Your task to perform on an android device: open app "Microsoft Authenticator" (install if not already installed) Image 0: 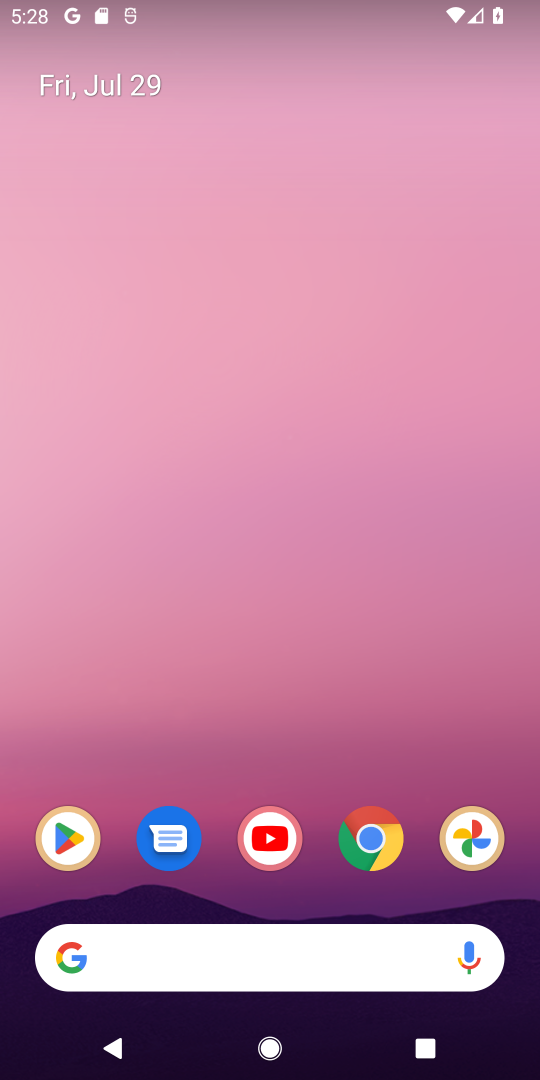
Step 0: click (77, 836)
Your task to perform on an android device: open app "Microsoft Authenticator" (install if not already installed) Image 1: 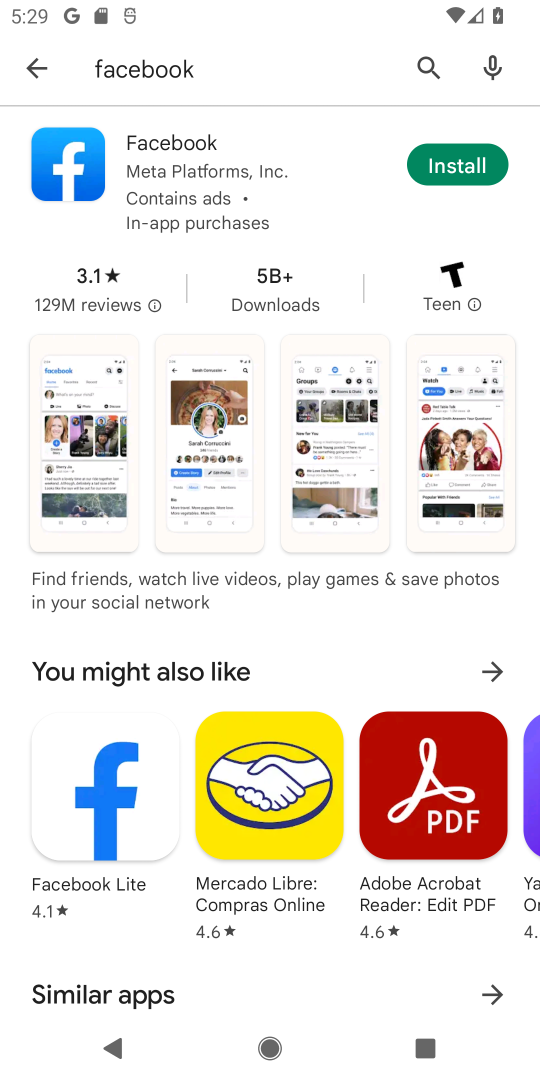
Step 1: click (419, 50)
Your task to perform on an android device: open app "Microsoft Authenticator" (install if not already installed) Image 2: 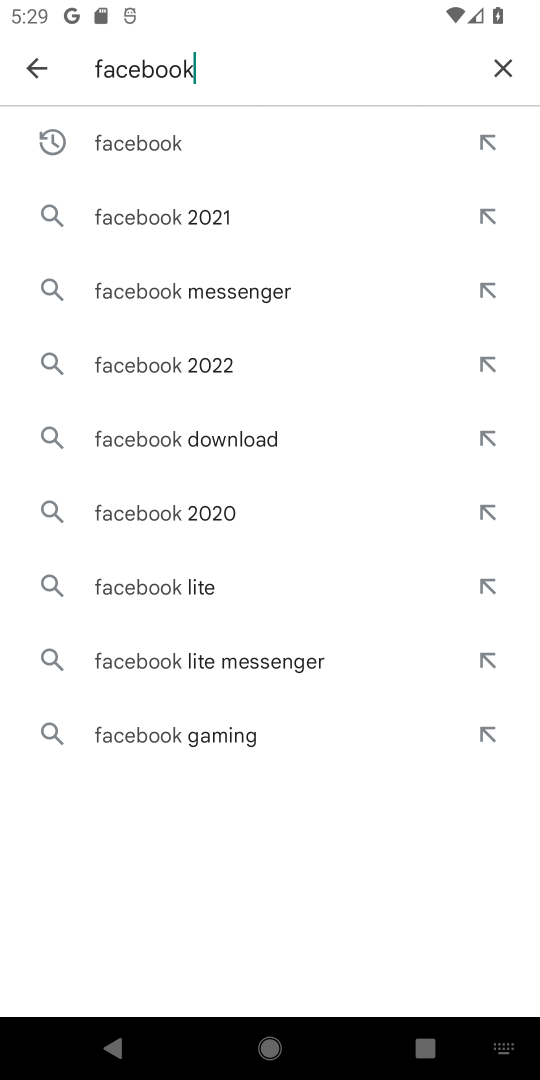
Step 2: click (500, 72)
Your task to perform on an android device: open app "Microsoft Authenticator" (install if not already installed) Image 3: 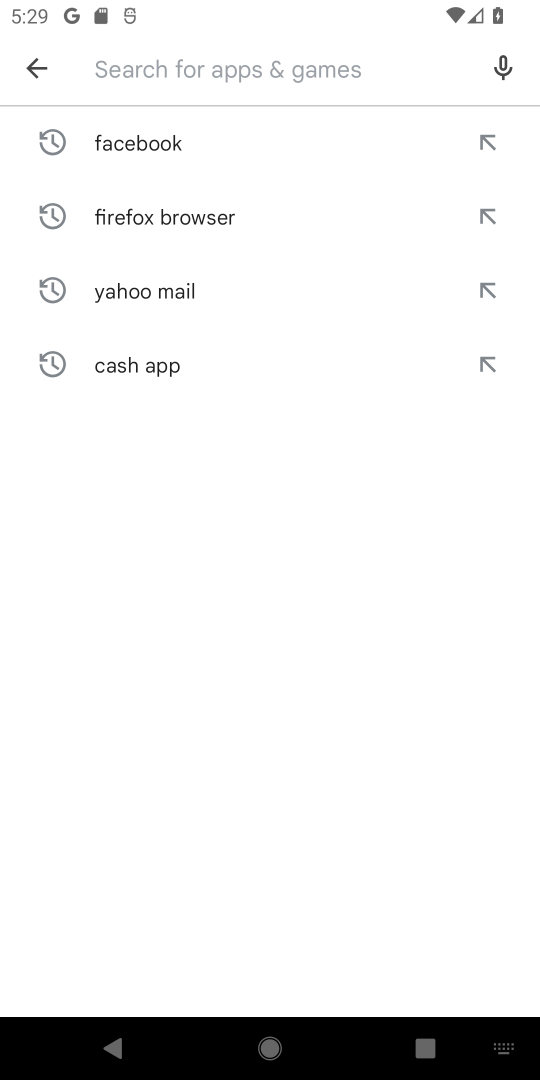
Step 3: click (256, 49)
Your task to perform on an android device: open app "Microsoft Authenticator" (install if not already installed) Image 4: 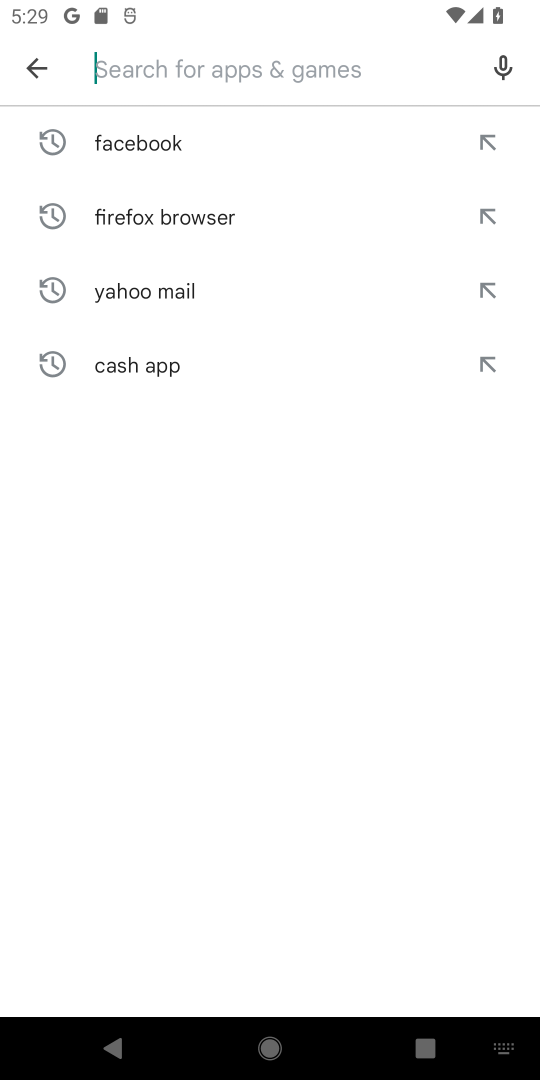
Step 4: type "microsoft authenticator"
Your task to perform on an android device: open app "Microsoft Authenticator" (install if not already installed) Image 5: 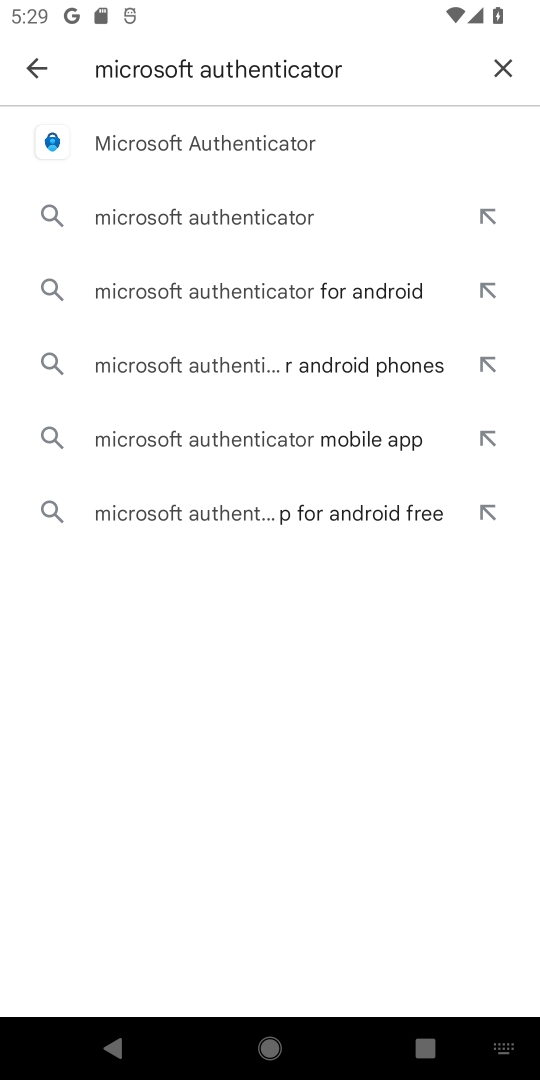
Step 5: click (306, 157)
Your task to perform on an android device: open app "Microsoft Authenticator" (install if not already installed) Image 6: 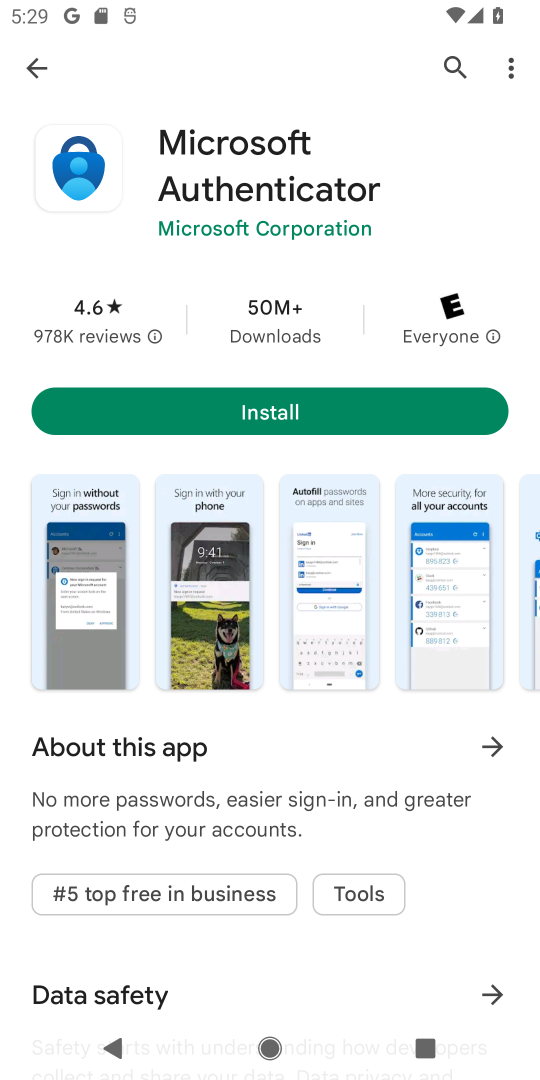
Step 6: click (256, 413)
Your task to perform on an android device: open app "Microsoft Authenticator" (install if not already installed) Image 7: 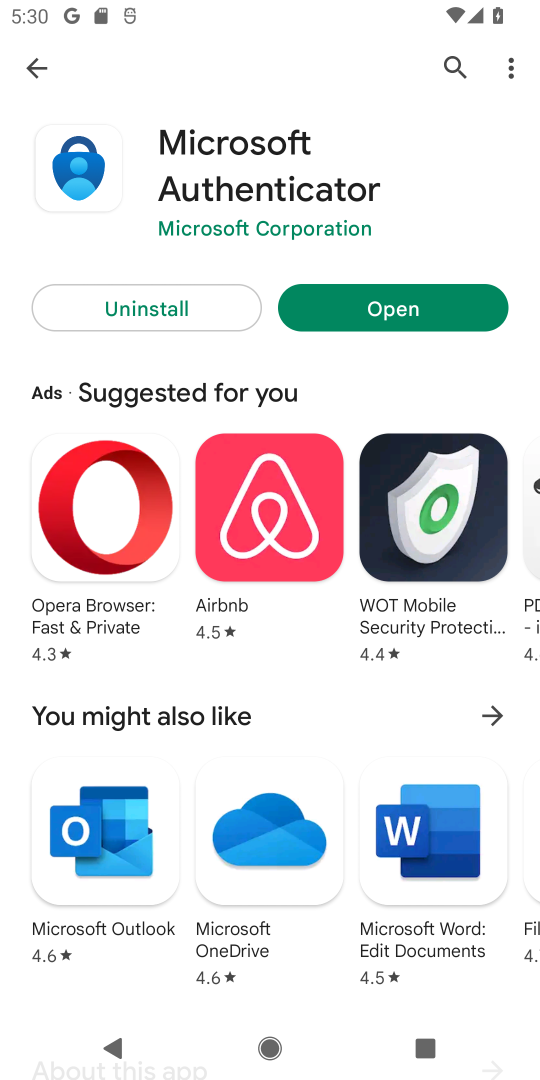
Step 7: click (366, 316)
Your task to perform on an android device: open app "Microsoft Authenticator" (install if not already installed) Image 8: 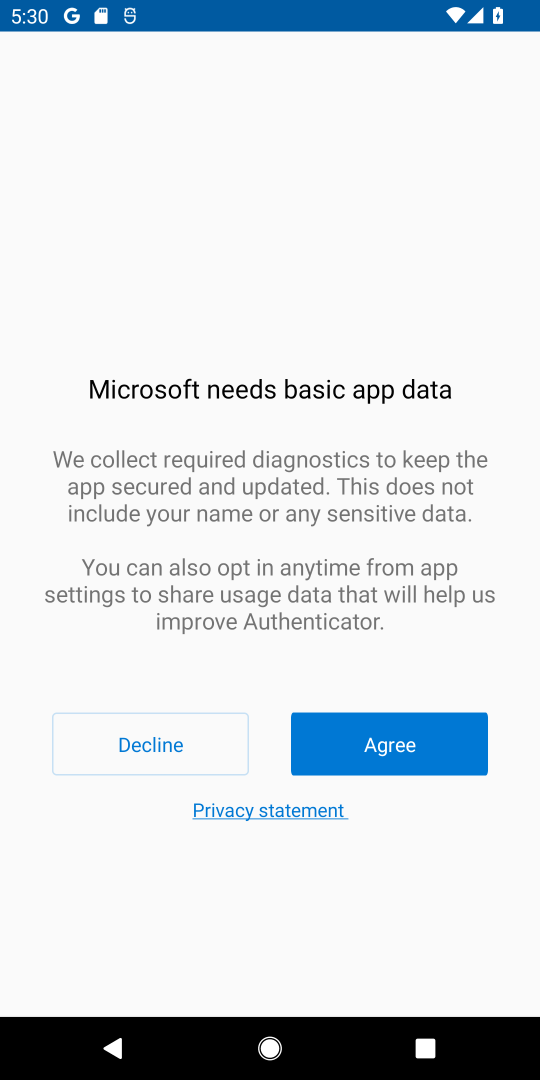
Step 8: task complete